Your task to perform on an android device: Open Chrome and go to the settings page Image 0: 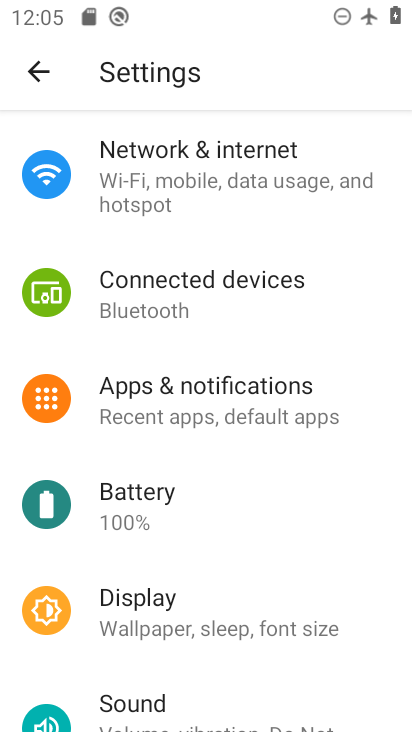
Step 0: press home button
Your task to perform on an android device: Open Chrome and go to the settings page Image 1: 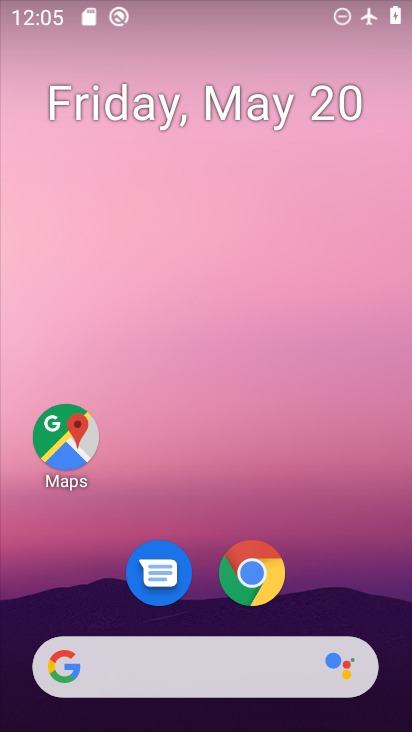
Step 1: click (245, 578)
Your task to perform on an android device: Open Chrome and go to the settings page Image 2: 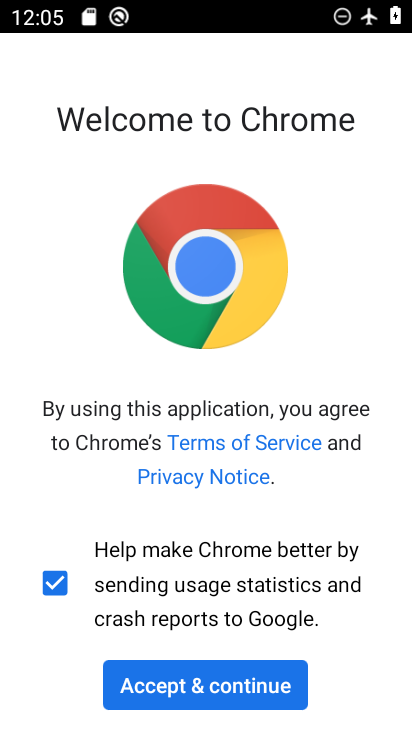
Step 2: click (213, 679)
Your task to perform on an android device: Open Chrome and go to the settings page Image 3: 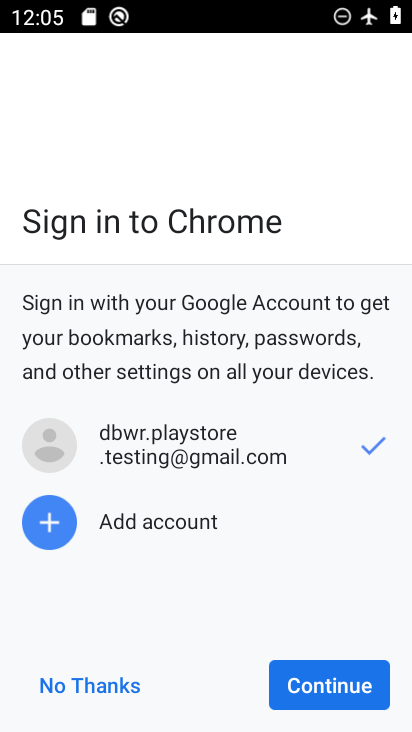
Step 3: click (335, 678)
Your task to perform on an android device: Open Chrome and go to the settings page Image 4: 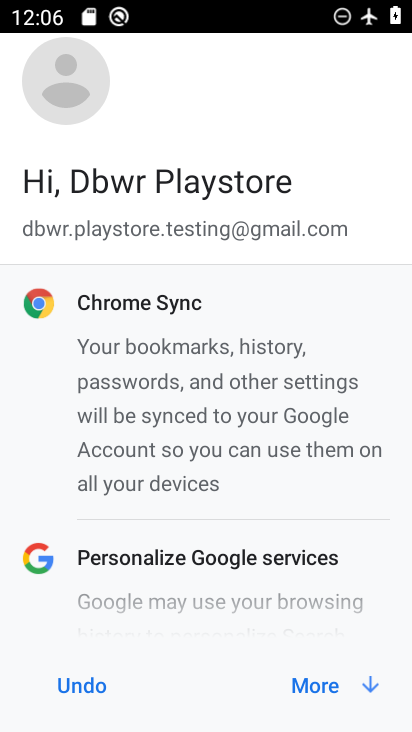
Step 4: click (322, 686)
Your task to perform on an android device: Open Chrome and go to the settings page Image 5: 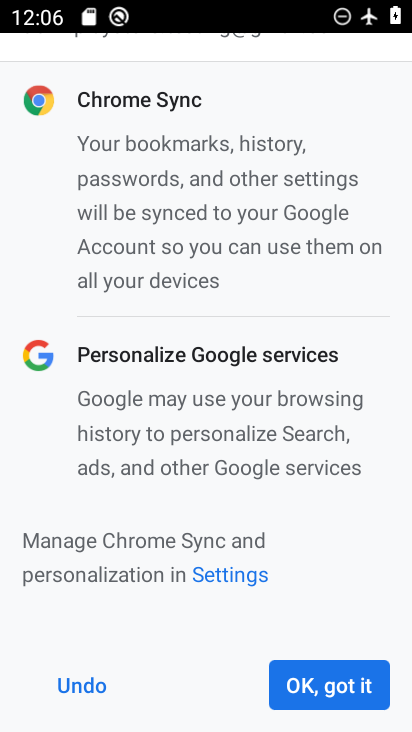
Step 5: click (325, 687)
Your task to perform on an android device: Open Chrome and go to the settings page Image 6: 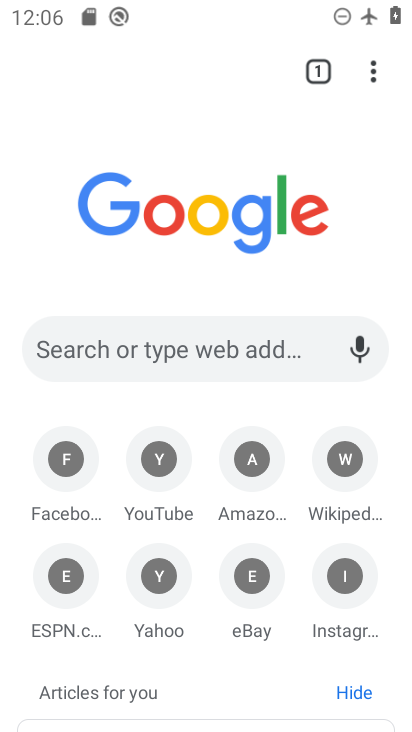
Step 6: click (369, 79)
Your task to perform on an android device: Open Chrome and go to the settings page Image 7: 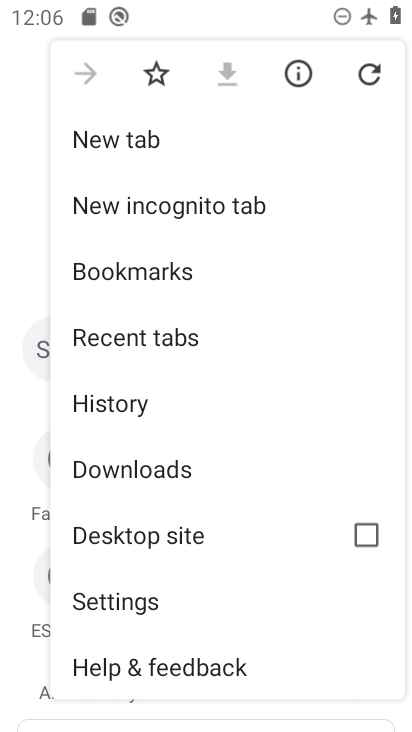
Step 7: click (112, 601)
Your task to perform on an android device: Open Chrome and go to the settings page Image 8: 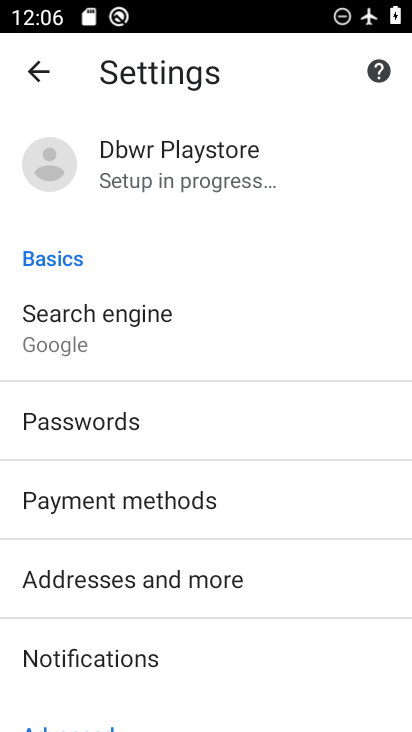
Step 8: task complete